Your task to perform on an android device: What's the news in the Dominican Republic? Image 0: 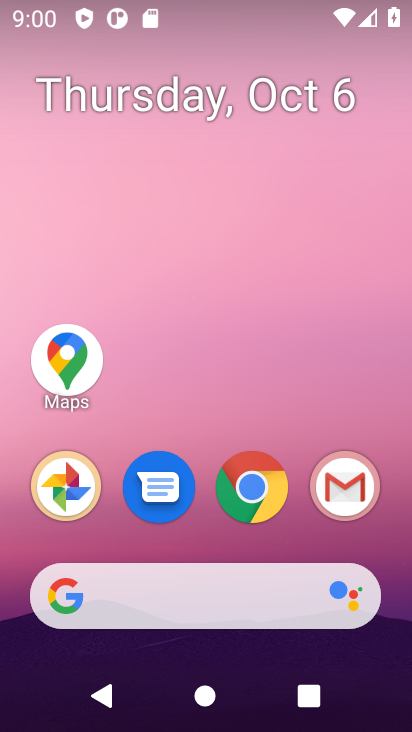
Step 0: drag from (177, 377) to (153, 146)
Your task to perform on an android device: What's the news in the Dominican Republic? Image 1: 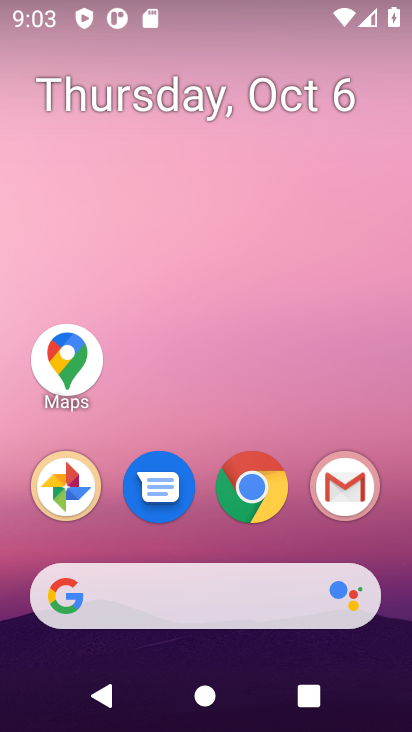
Step 1: drag from (173, 582) to (158, 113)
Your task to perform on an android device: What's the news in the Dominican Republic? Image 2: 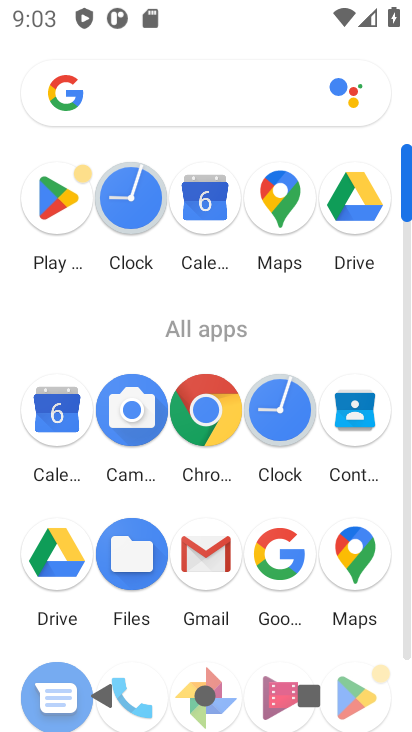
Step 2: click (202, 415)
Your task to perform on an android device: What's the news in the Dominican Republic? Image 3: 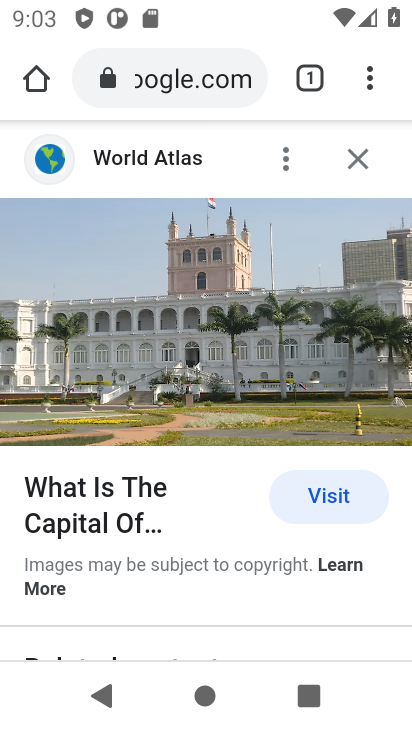
Step 3: click (223, 74)
Your task to perform on an android device: What's the news in the Dominican Republic? Image 4: 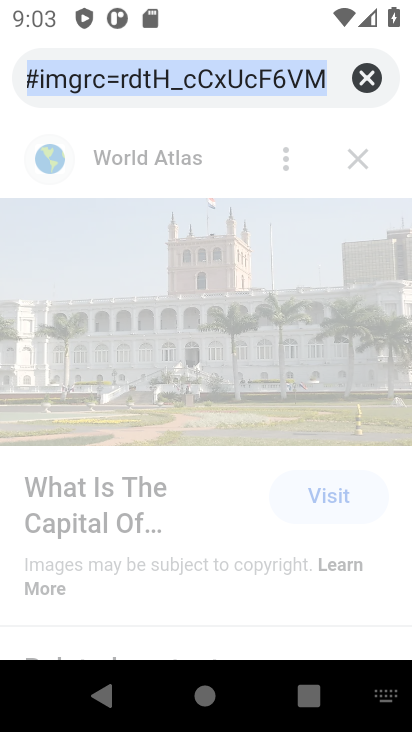
Step 4: click (375, 89)
Your task to perform on an android device: What's the news in the Dominican Republic? Image 5: 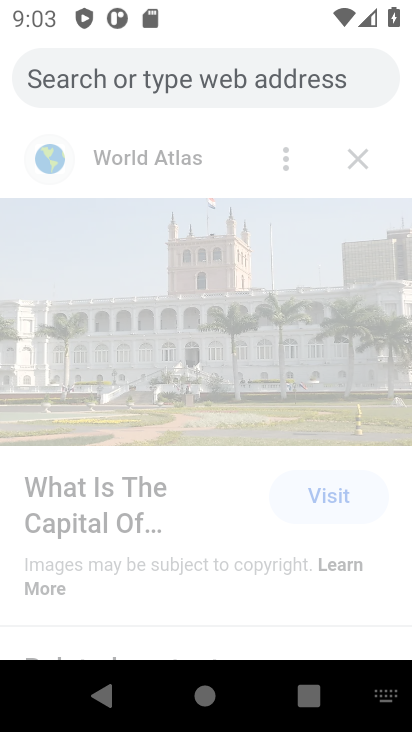
Step 5: type "What's the news in the Dominican Republic?"
Your task to perform on an android device: What's the news in the Dominican Republic? Image 6: 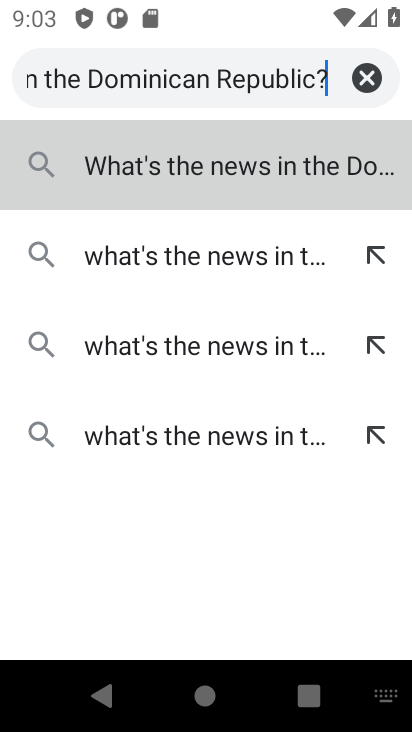
Step 6: press enter
Your task to perform on an android device: What's the news in the Dominican Republic? Image 7: 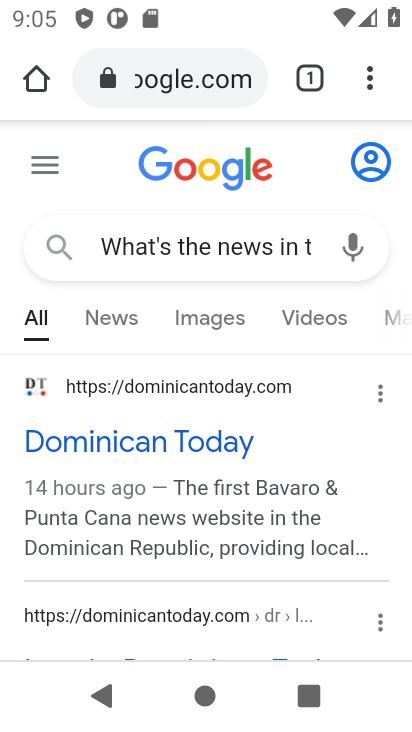
Step 7: task complete